Your task to perform on an android device: Open eBay Image 0: 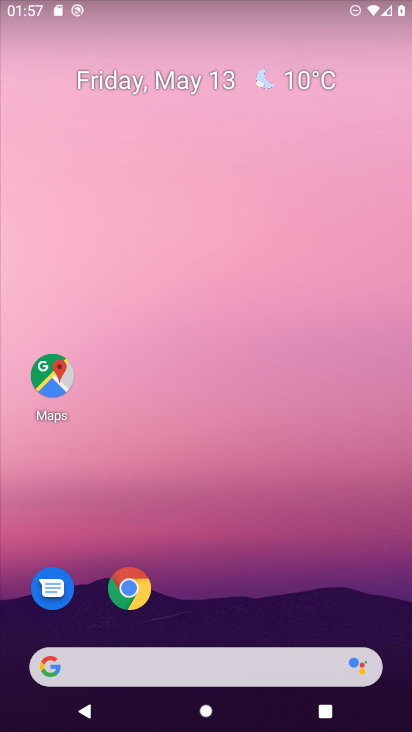
Step 0: click (127, 593)
Your task to perform on an android device: Open eBay Image 1: 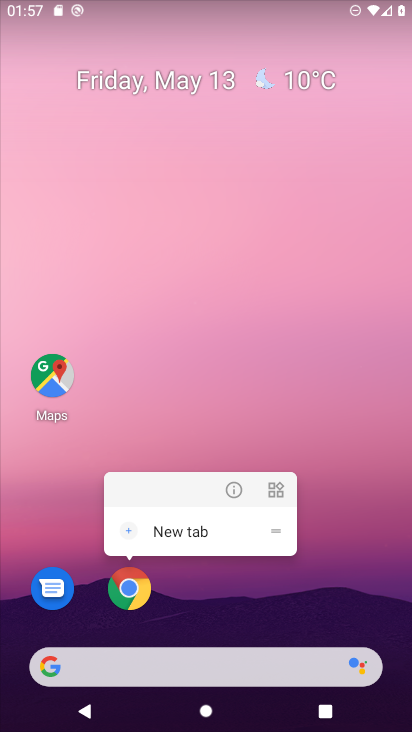
Step 1: click (127, 584)
Your task to perform on an android device: Open eBay Image 2: 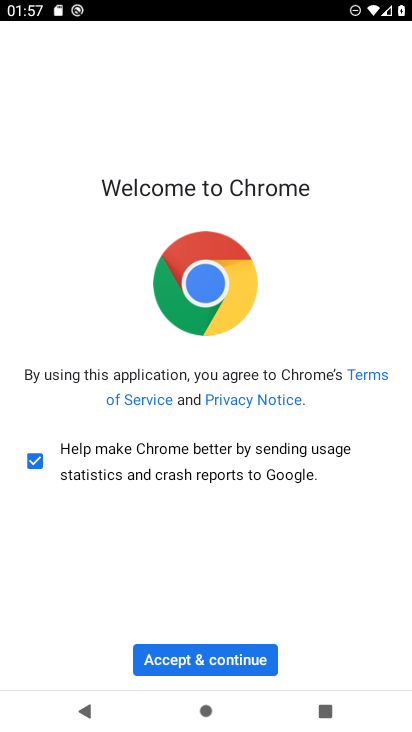
Step 2: click (200, 657)
Your task to perform on an android device: Open eBay Image 3: 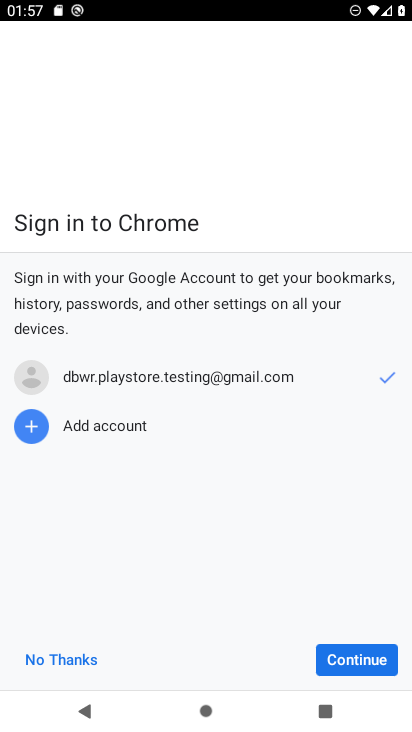
Step 3: click (355, 664)
Your task to perform on an android device: Open eBay Image 4: 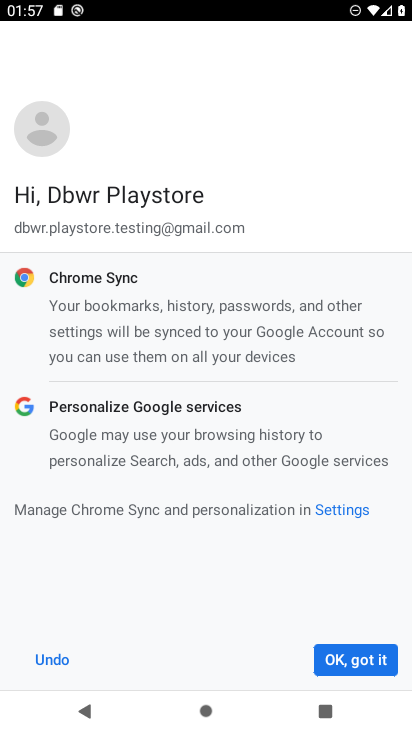
Step 4: click (354, 660)
Your task to perform on an android device: Open eBay Image 5: 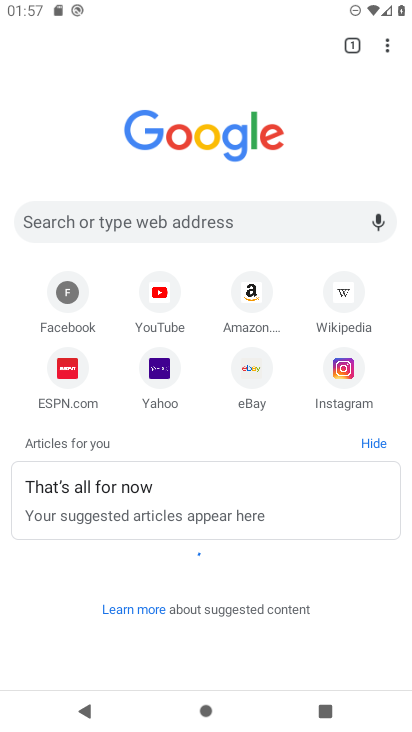
Step 5: click (166, 213)
Your task to perform on an android device: Open eBay Image 6: 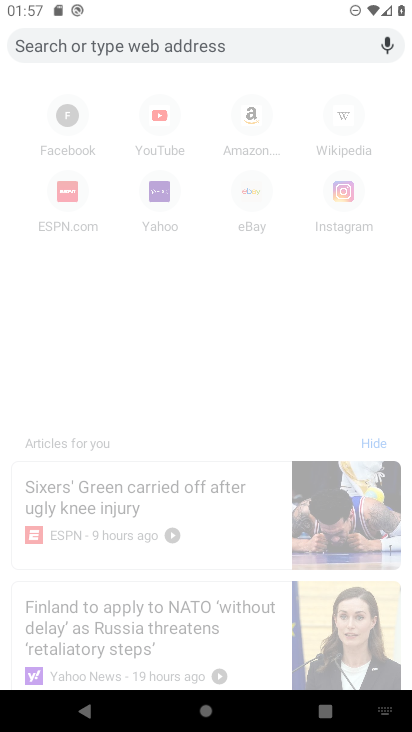
Step 6: type " eBay"
Your task to perform on an android device: Open eBay Image 7: 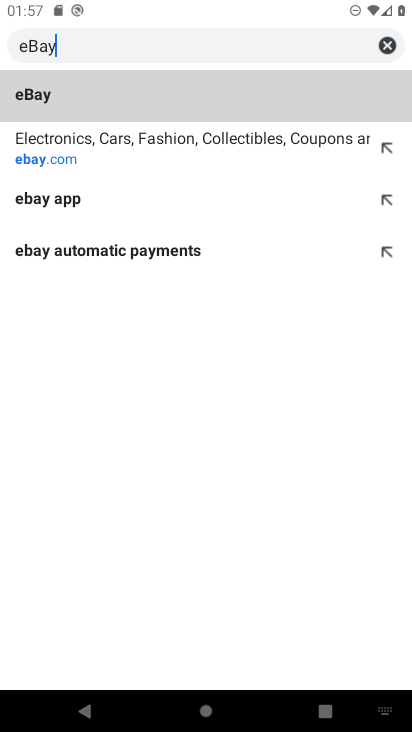
Step 7: click (44, 161)
Your task to perform on an android device: Open eBay Image 8: 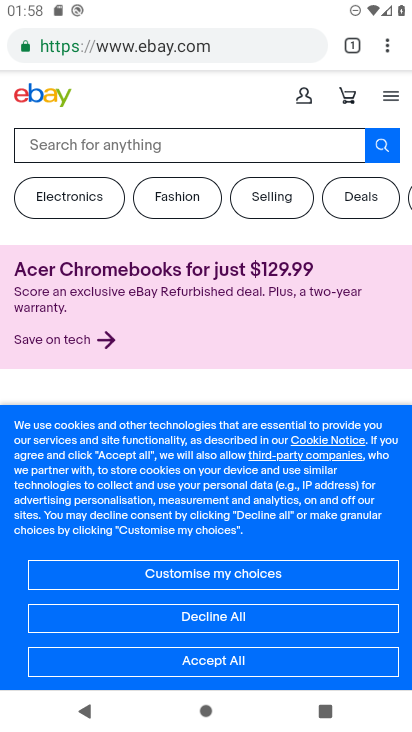
Step 8: task complete